Your task to perform on an android device: open app "Roku - Official Remote Control" (install if not already installed) and enter user name: "autumnal@gmail.com" and password: "stuffing" Image 0: 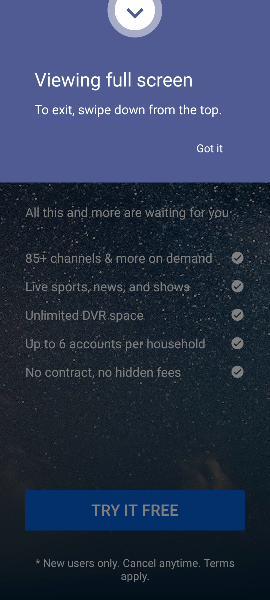
Step 0: press home button
Your task to perform on an android device: open app "Roku - Official Remote Control" (install if not already installed) and enter user name: "autumnal@gmail.com" and password: "stuffing" Image 1: 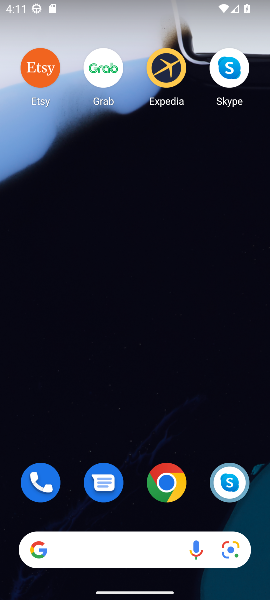
Step 1: drag from (134, 521) to (128, 61)
Your task to perform on an android device: open app "Roku - Official Remote Control" (install if not already installed) and enter user name: "autumnal@gmail.com" and password: "stuffing" Image 2: 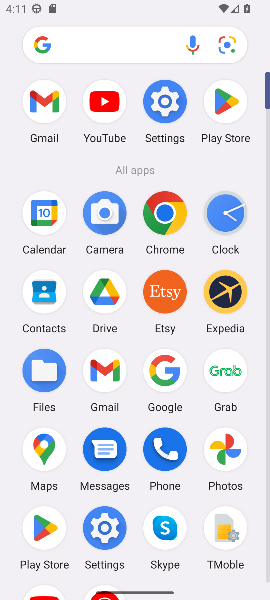
Step 2: click (45, 528)
Your task to perform on an android device: open app "Roku - Official Remote Control" (install if not already installed) and enter user name: "autumnal@gmail.com" and password: "stuffing" Image 3: 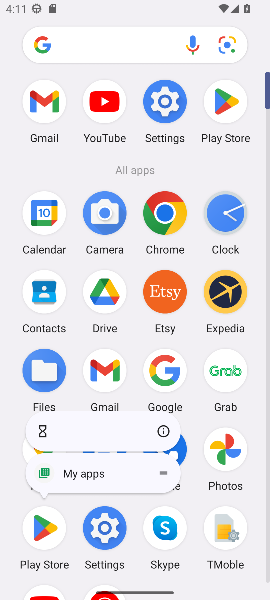
Step 3: click (45, 530)
Your task to perform on an android device: open app "Roku - Official Remote Control" (install if not already installed) and enter user name: "autumnal@gmail.com" and password: "stuffing" Image 4: 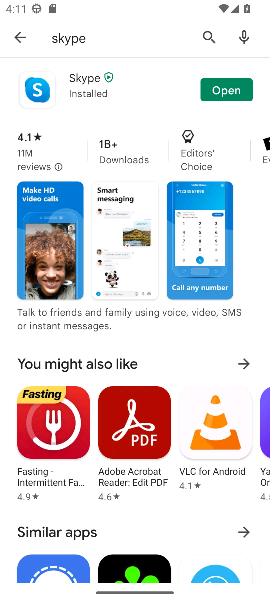
Step 4: click (207, 35)
Your task to perform on an android device: open app "Roku - Official Remote Control" (install if not already installed) and enter user name: "autumnal@gmail.com" and password: "stuffing" Image 5: 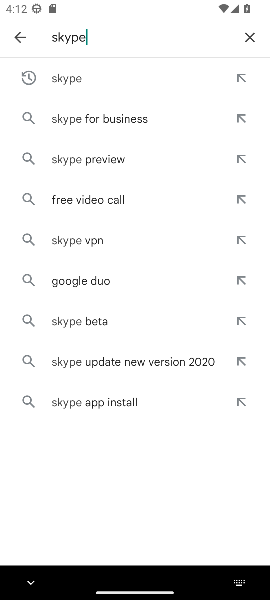
Step 5: click (255, 35)
Your task to perform on an android device: open app "Roku - Official Remote Control" (install if not already installed) and enter user name: "autumnal@gmail.com" and password: "stuffing" Image 6: 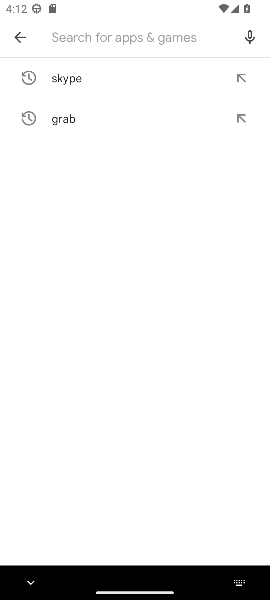
Step 6: type "Roku - Official Remote Control"
Your task to perform on an android device: open app "Roku - Official Remote Control" (install if not already installed) and enter user name: "autumnal@gmail.com" and password: "stuffing" Image 7: 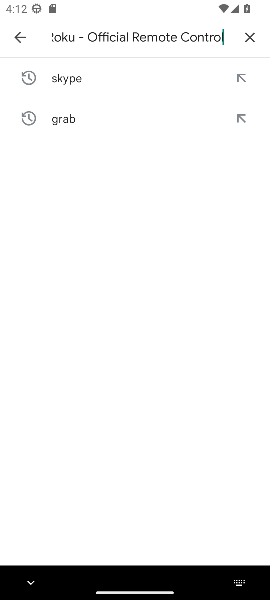
Step 7: type ""
Your task to perform on an android device: open app "Roku - Official Remote Control" (install if not already installed) and enter user name: "autumnal@gmail.com" and password: "stuffing" Image 8: 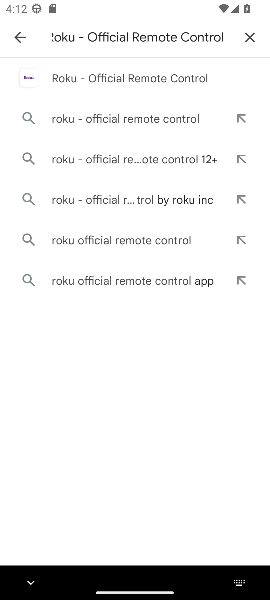
Step 8: click (55, 79)
Your task to perform on an android device: open app "Roku - Official Remote Control" (install if not already installed) and enter user name: "autumnal@gmail.com" and password: "stuffing" Image 9: 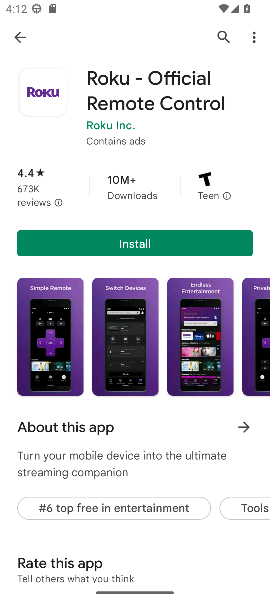
Step 9: click (114, 246)
Your task to perform on an android device: open app "Roku - Official Remote Control" (install if not already installed) and enter user name: "autumnal@gmail.com" and password: "stuffing" Image 10: 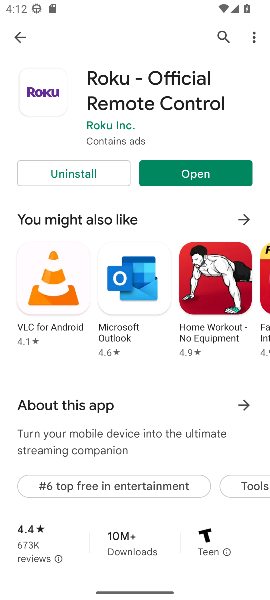
Step 10: click (209, 173)
Your task to perform on an android device: open app "Roku - Official Remote Control" (install if not already installed) and enter user name: "autumnal@gmail.com" and password: "stuffing" Image 11: 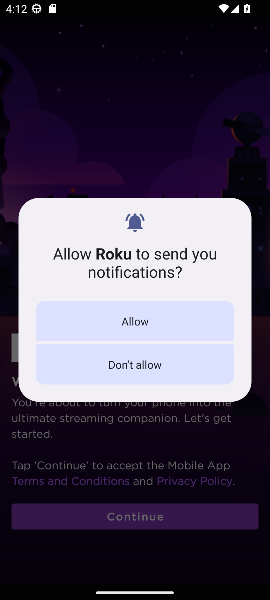
Step 11: click (169, 323)
Your task to perform on an android device: open app "Roku - Official Remote Control" (install if not already installed) and enter user name: "autumnal@gmail.com" and password: "stuffing" Image 12: 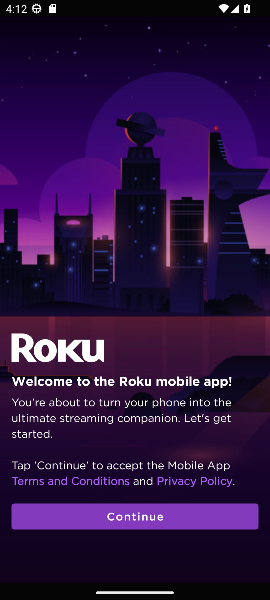
Step 12: click (157, 518)
Your task to perform on an android device: open app "Roku - Official Remote Control" (install if not already installed) and enter user name: "autumnal@gmail.com" and password: "stuffing" Image 13: 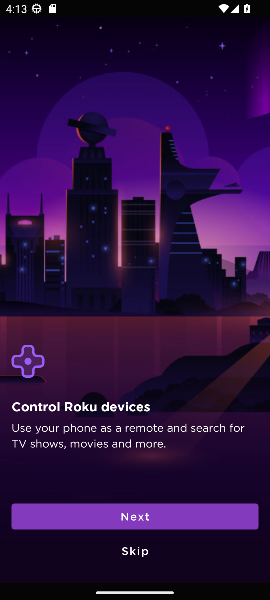
Step 13: click (158, 514)
Your task to perform on an android device: open app "Roku - Official Remote Control" (install if not already installed) and enter user name: "autumnal@gmail.com" and password: "stuffing" Image 14: 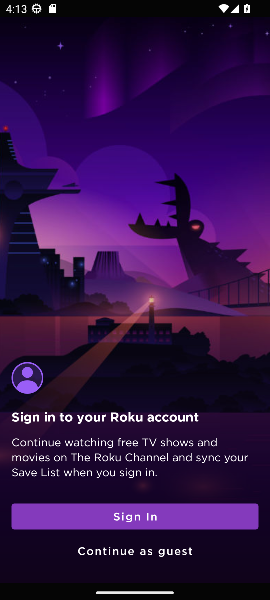
Step 14: click (158, 516)
Your task to perform on an android device: open app "Roku - Official Remote Control" (install if not already installed) and enter user name: "autumnal@gmail.com" and password: "stuffing" Image 15: 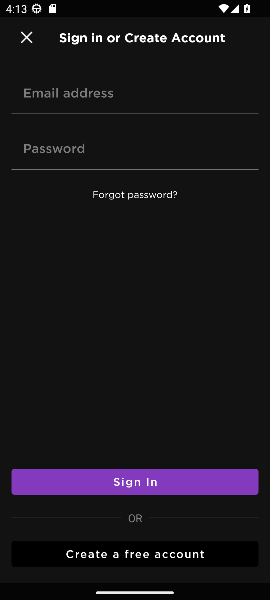
Step 15: click (107, 95)
Your task to perform on an android device: open app "Roku - Official Remote Control" (install if not already installed) and enter user name: "autumnal@gmail.com" and password: "stuffing" Image 16: 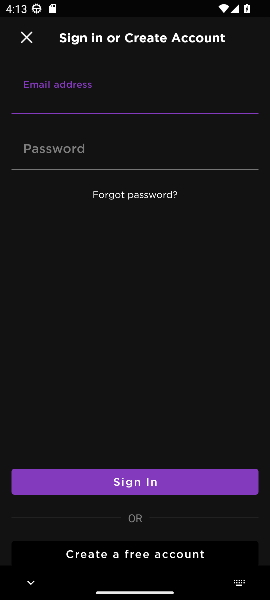
Step 16: type "autumnal@gmail.com"
Your task to perform on an android device: open app "Roku - Official Remote Control" (install if not already installed) and enter user name: "autumnal@gmail.com" and password: "stuffing" Image 17: 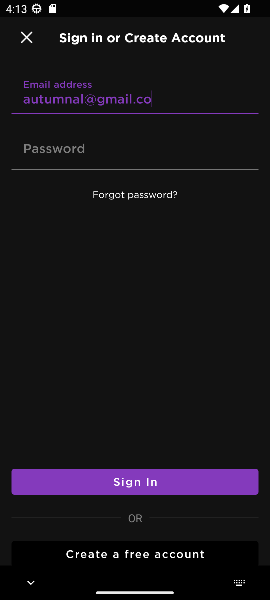
Step 17: type ""
Your task to perform on an android device: open app "Roku - Official Remote Control" (install if not already installed) and enter user name: "autumnal@gmail.com" and password: "stuffing" Image 18: 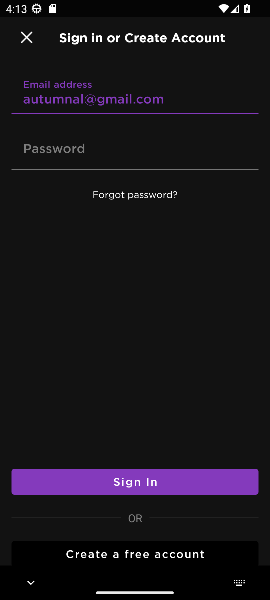
Step 18: click (104, 152)
Your task to perform on an android device: open app "Roku - Official Remote Control" (install if not already installed) and enter user name: "autumnal@gmail.com" and password: "stuffing" Image 19: 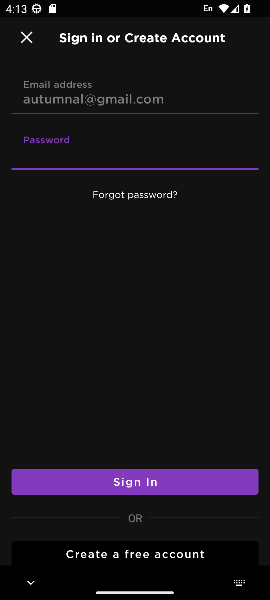
Step 19: type "stuffing"
Your task to perform on an android device: open app "Roku - Official Remote Control" (install if not already installed) and enter user name: "autumnal@gmail.com" and password: "stuffing" Image 20: 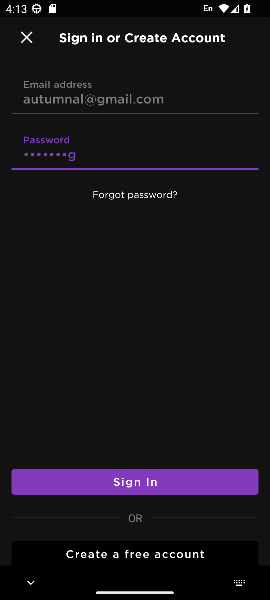
Step 20: type ""
Your task to perform on an android device: open app "Roku - Official Remote Control" (install if not already installed) and enter user name: "autumnal@gmail.com" and password: "stuffing" Image 21: 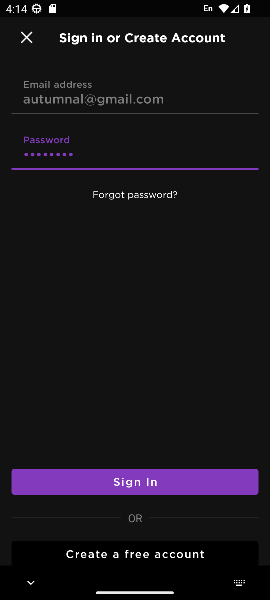
Step 21: task complete